Your task to perform on an android device: Is it going to rain this weekend? Image 0: 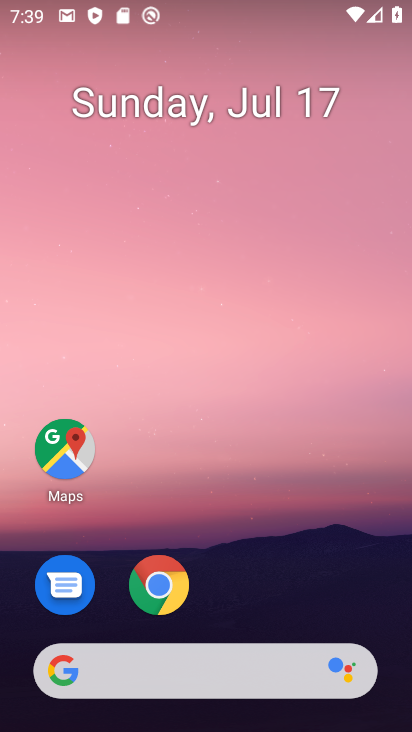
Step 0: click (172, 670)
Your task to perform on an android device: Is it going to rain this weekend? Image 1: 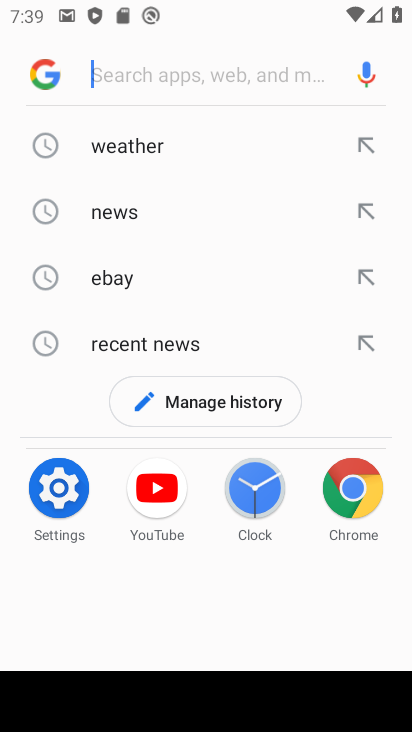
Step 1: click (140, 150)
Your task to perform on an android device: Is it going to rain this weekend? Image 2: 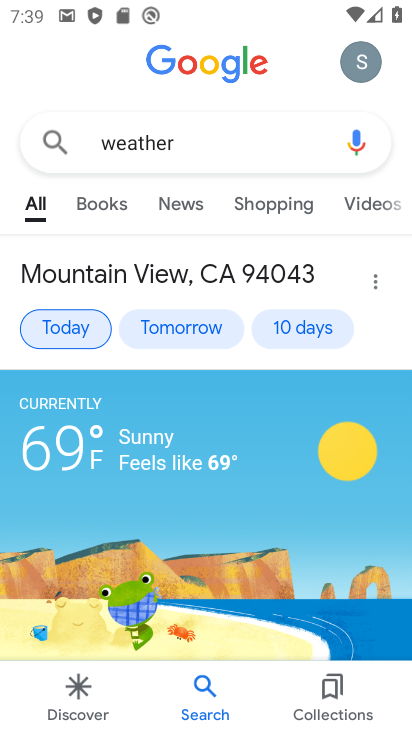
Step 2: click (294, 331)
Your task to perform on an android device: Is it going to rain this weekend? Image 3: 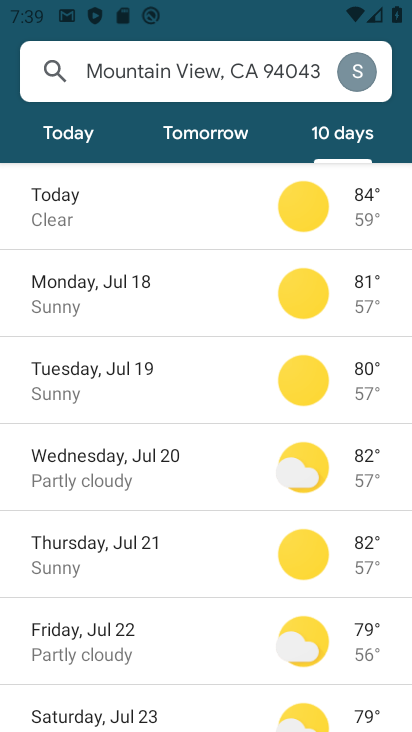
Step 3: click (109, 703)
Your task to perform on an android device: Is it going to rain this weekend? Image 4: 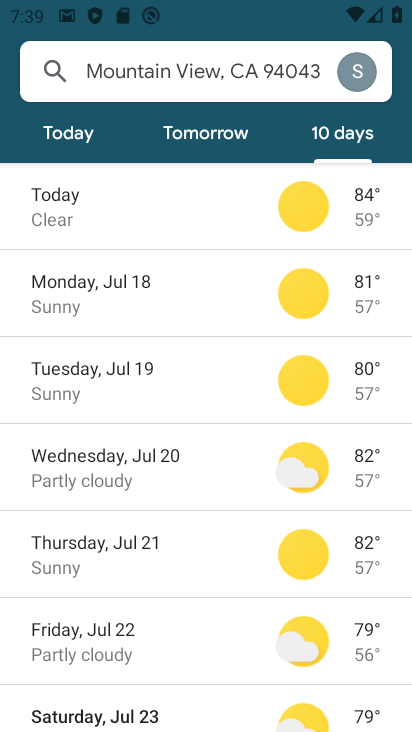
Step 4: task complete